Your task to perform on an android device: check battery use Image 0: 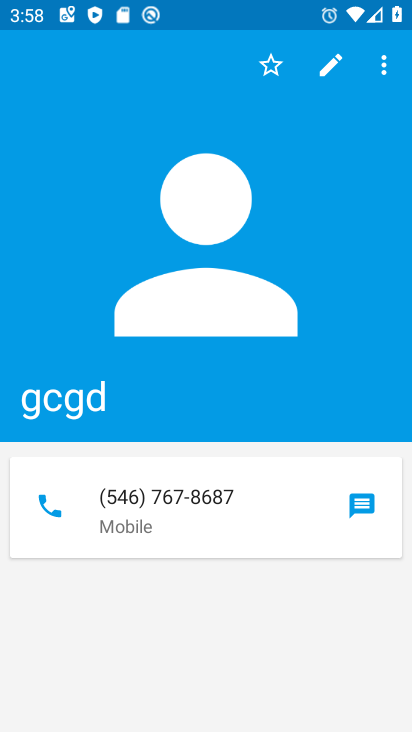
Step 0: press home button
Your task to perform on an android device: check battery use Image 1: 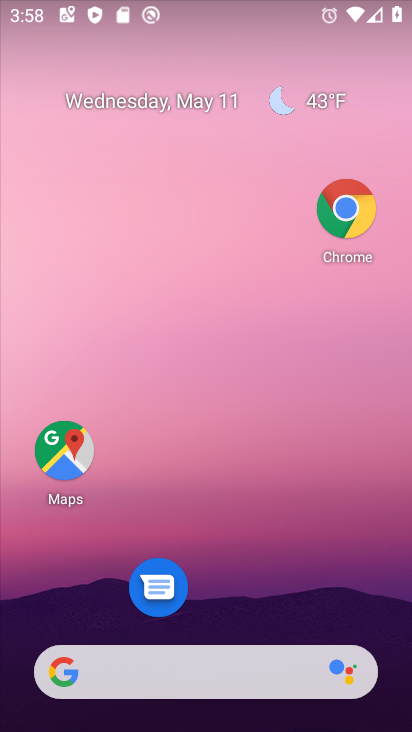
Step 1: drag from (260, 603) to (241, 355)
Your task to perform on an android device: check battery use Image 2: 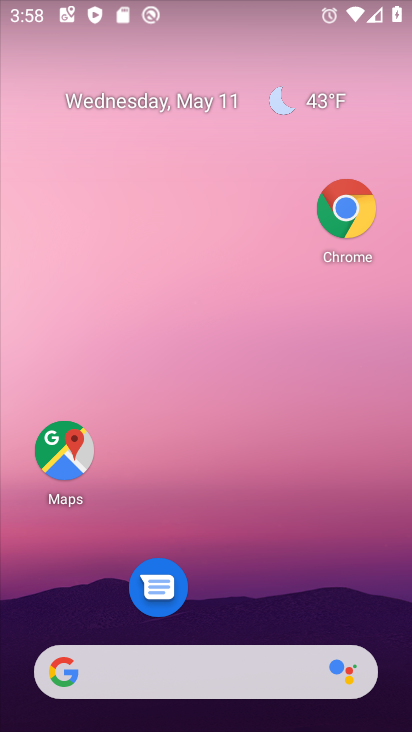
Step 2: drag from (224, 493) to (210, 102)
Your task to perform on an android device: check battery use Image 3: 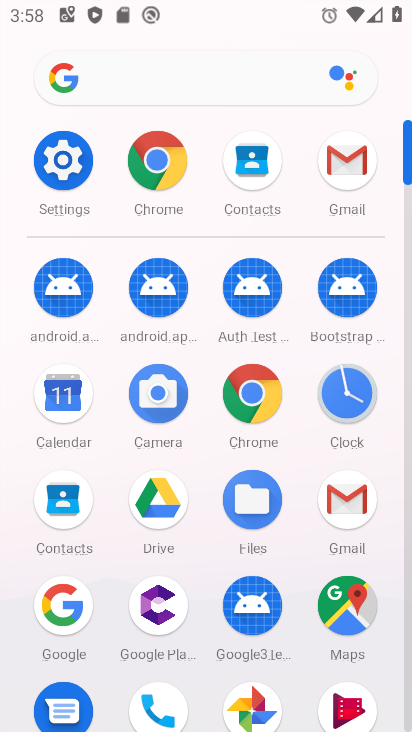
Step 3: click (71, 182)
Your task to perform on an android device: check battery use Image 4: 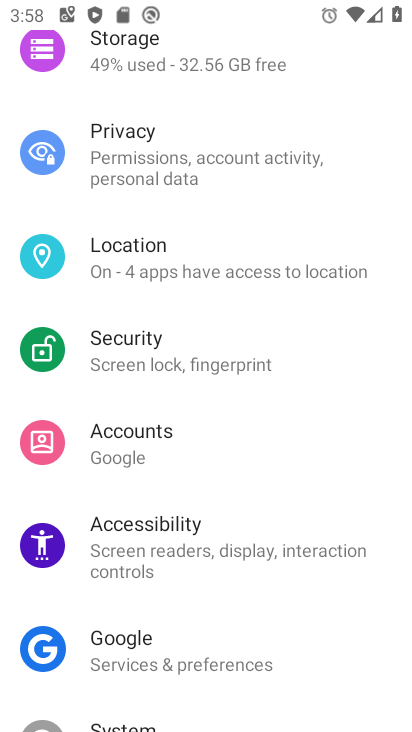
Step 4: drag from (306, 239) to (301, 460)
Your task to perform on an android device: check battery use Image 5: 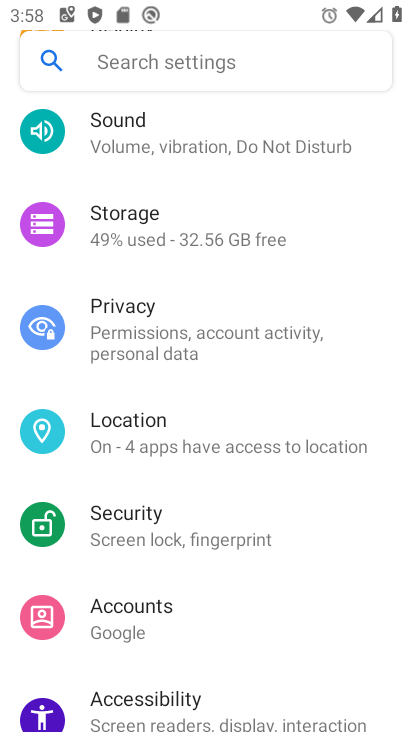
Step 5: drag from (322, 186) to (320, 579)
Your task to perform on an android device: check battery use Image 6: 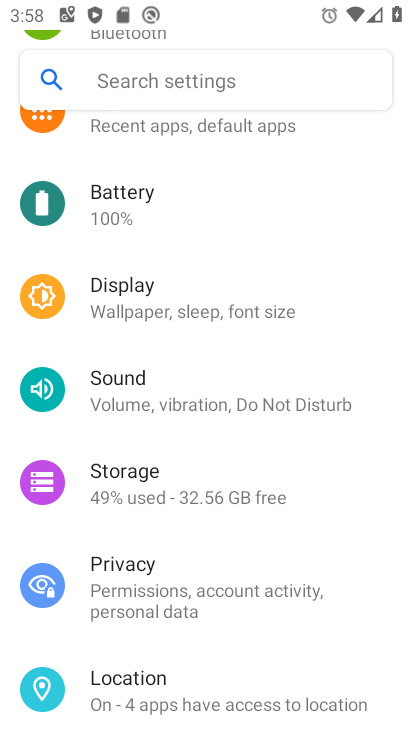
Step 6: click (168, 212)
Your task to perform on an android device: check battery use Image 7: 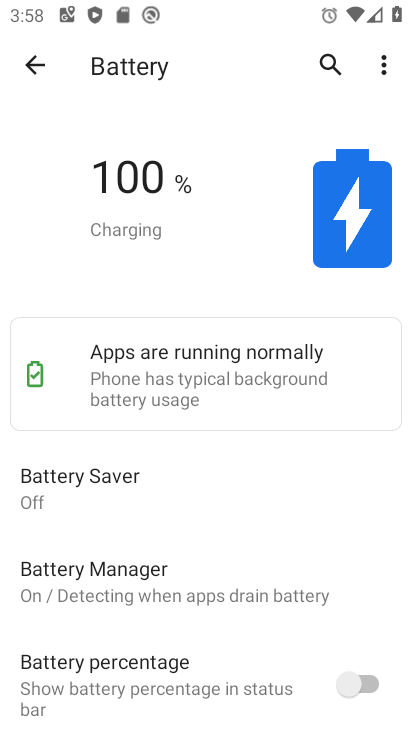
Step 7: click (384, 60)
Your task to perform on an android device: check battery use Image 8: 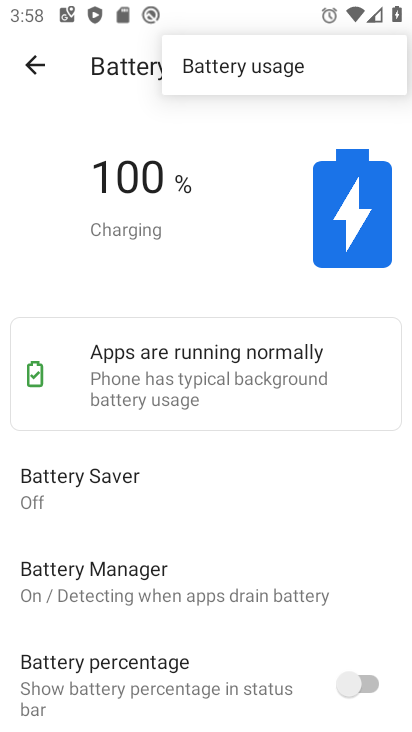
Step 8: click (289, 56)
Your task to perform on an android device: check battery use Image 9: 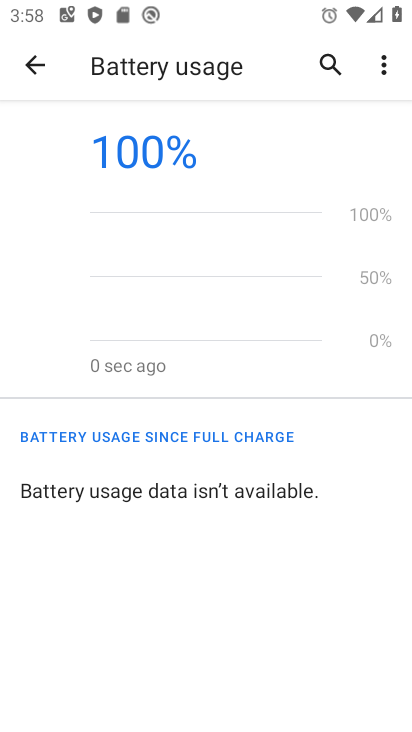
Step 9: task complete